Your task to perform on an android device: turn on improve location accuracy Image 0: 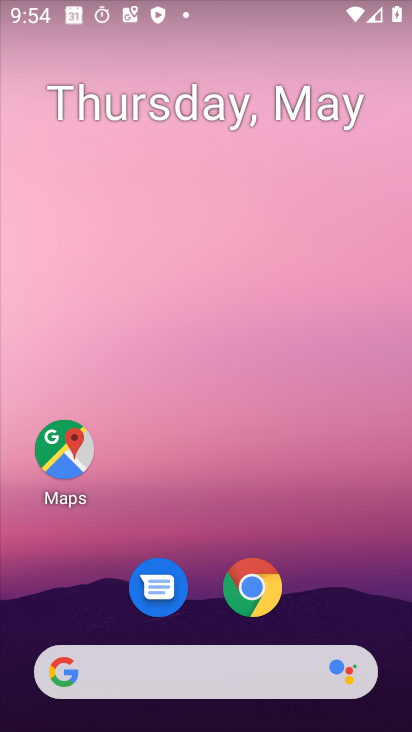
Step 0: drag from (326, 605) to (257, 19)
Your task to perform on an android device: turn on improve location accuracy Image 1: 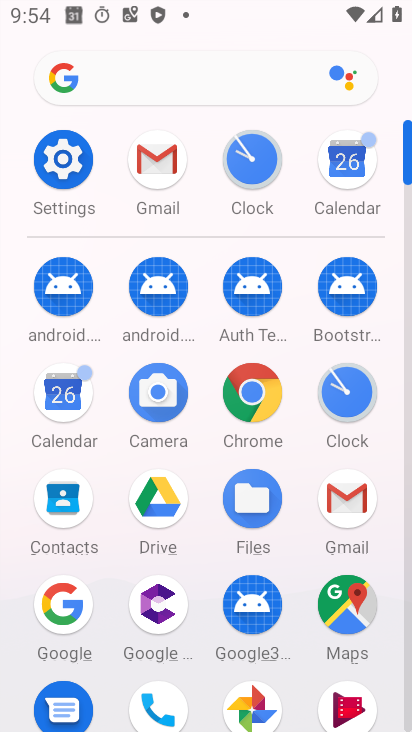
Step 1: click (61, 152)
Your task to perform on an android device: turn on improve location accuracy Image 2: 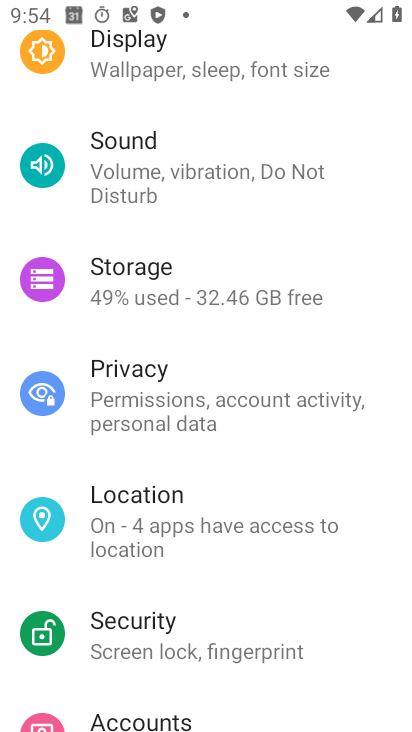
Step 2: click (178, 506)
Your task to perform on an android device: turn on improve location accuracy Image 3: 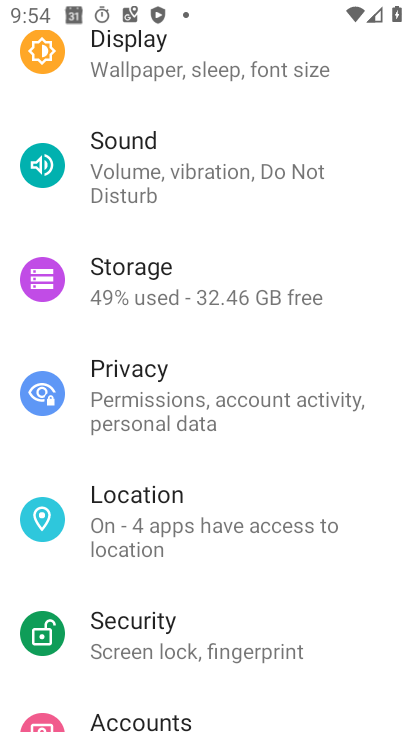
Step 3: click (141, 516)
Your task to perform on an android device: turn on improve location accuracy Image 4: 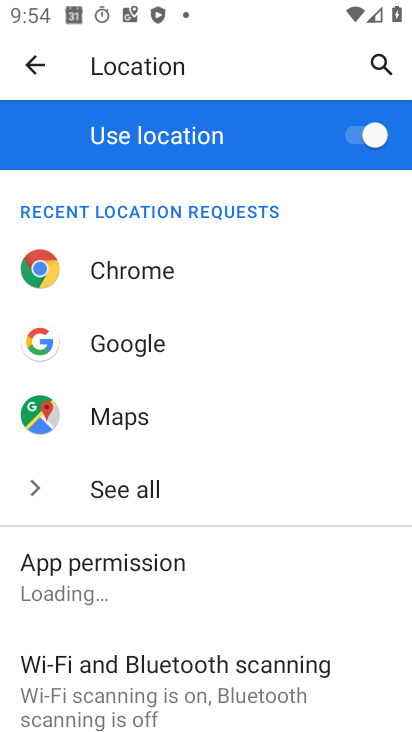
Step 4: drag from (222, 487) to (198, 41)
Your task to perform on an android device: turn on improve location accuracy Image 5: 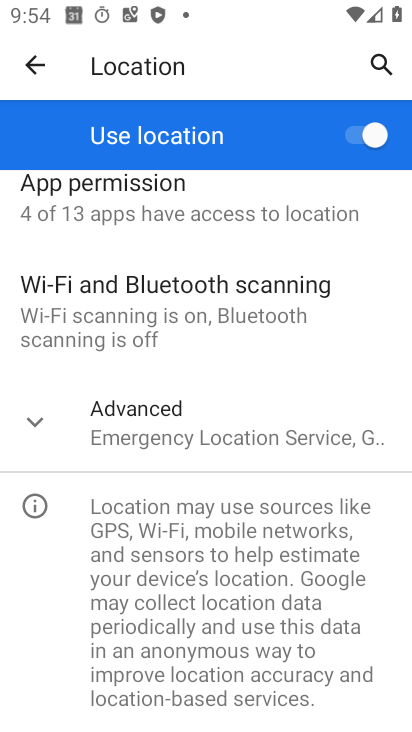
Step 5: click (33, 425)
Your task to perform on an android device: turn on improve location accuracy Image 6: 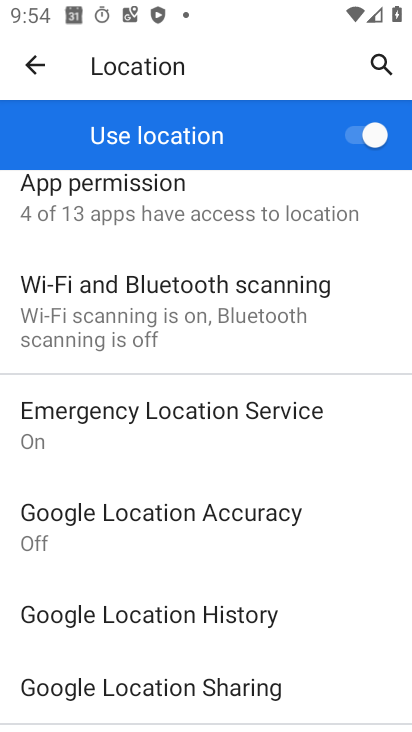
Step 6: click (127, 512)
Your task to perform on an android device: turn on improve location accuracy Image 7: 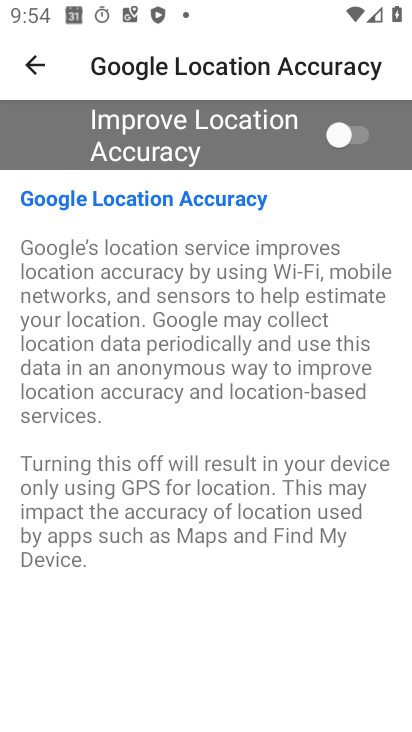
Step 7: click (356, 115)
Your task to perform on an android device: turn on improve location accuracy Image 8: 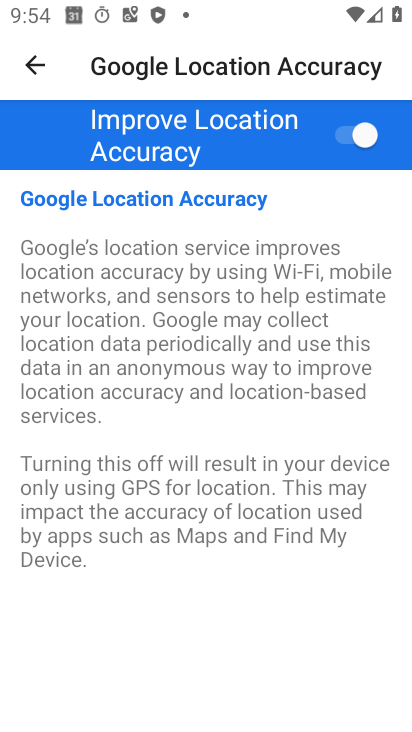
Step 8: task complete